Your task to perform on an android device: Show me popular games on the Play Store Image 0: 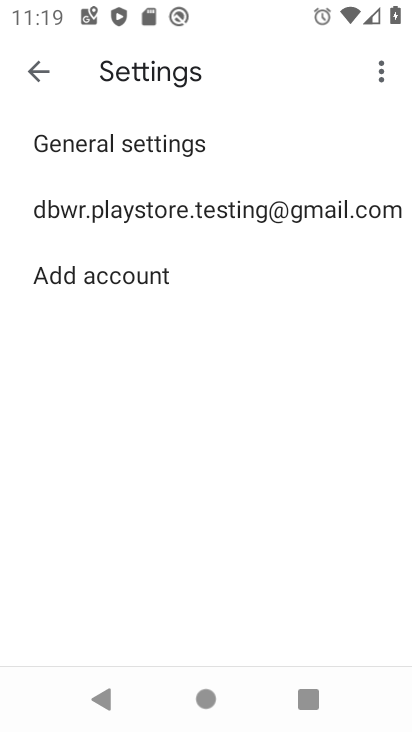
Step 0: press home button
Your task to perform on an android device: Show me popular games on the Play Store Image 1: 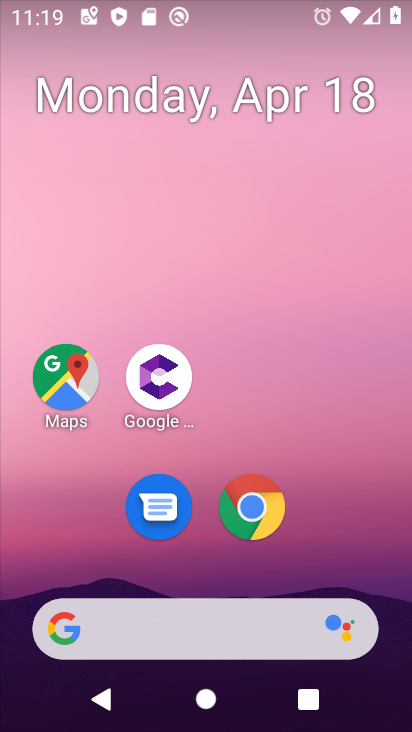
Step 1: drag from (272, 522) to (268, 170)
Your task to perform on an android device: Show me popular games on the Play Store Image 2: 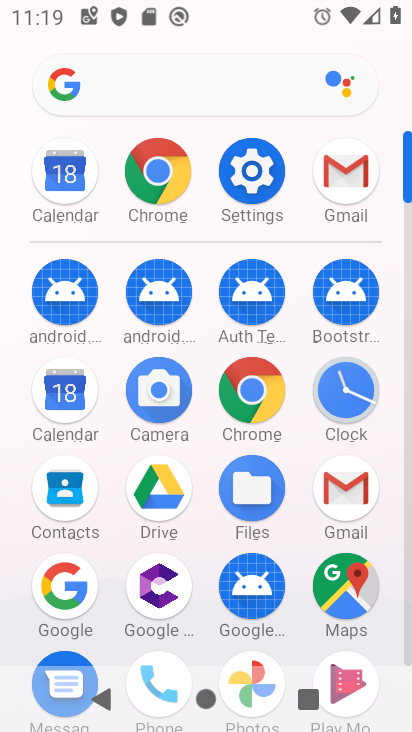
Step 2: drag from (193, 557) to (214, 305)
Your task to perform on an android device: Show me popular games on the Play Store Image 3: 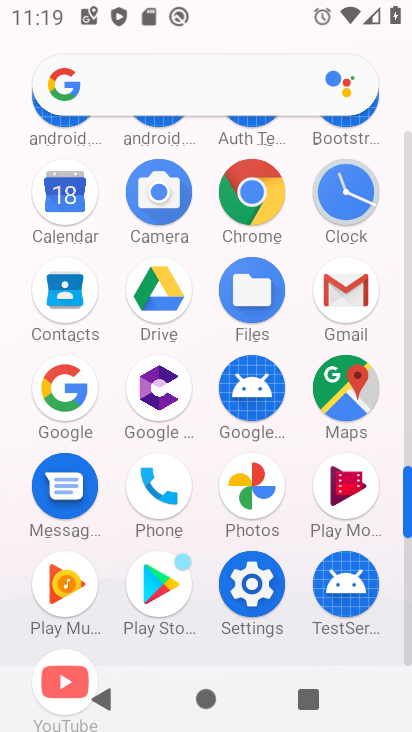
Step 3: click (173, 593)
Your task to perform on an android device: Show me popular games on the Play Store Image 4: 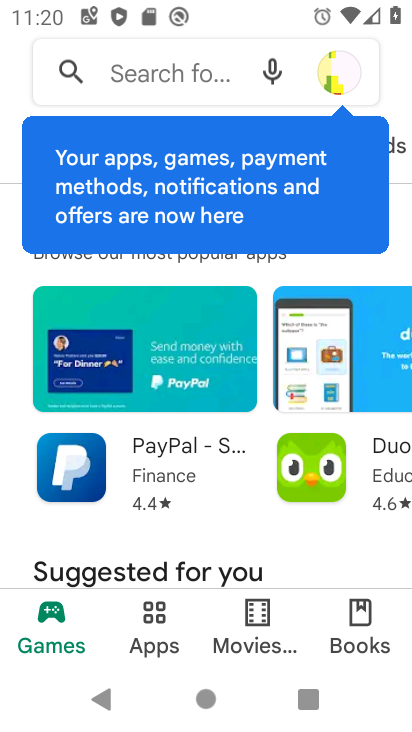
Step 4: click (188, 74)
Your task to perform on an android device: Show me popular games on the Play Store Image 5: 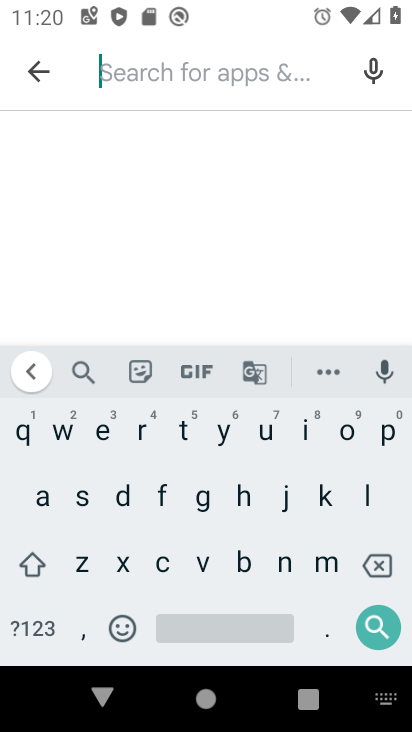
Step 5: click (387, 433)
Your task to perform on an android device: Show me popular games on the Play Store Image 6: 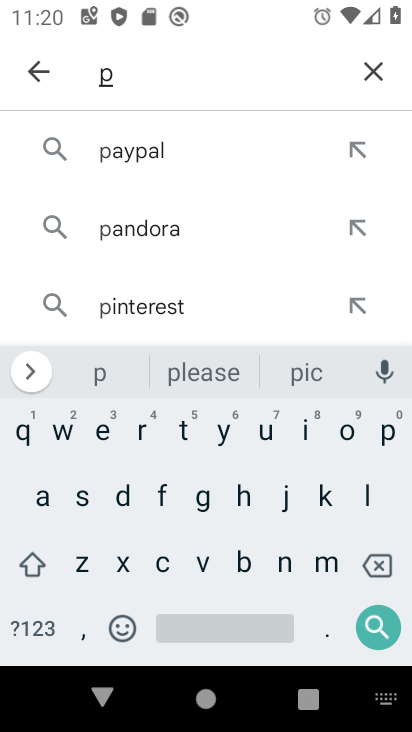
Step 6: click (341, 441)
Your task to perform on an android device: Show me popular games on the Play Store Image 7: 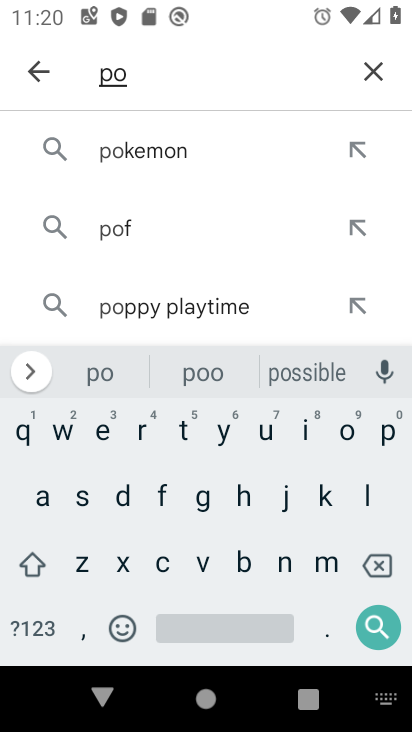
Step 7: click (385, 433)
Your task to perform on an android device: Show me popular games on the Play Store Image 8: 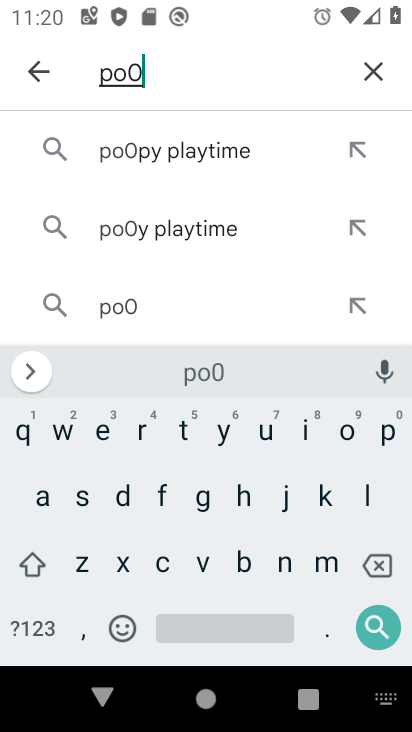
Step 8: click (263, 431)
Your task to perform on an android device: Show me popular games on the Play Store Image 9: 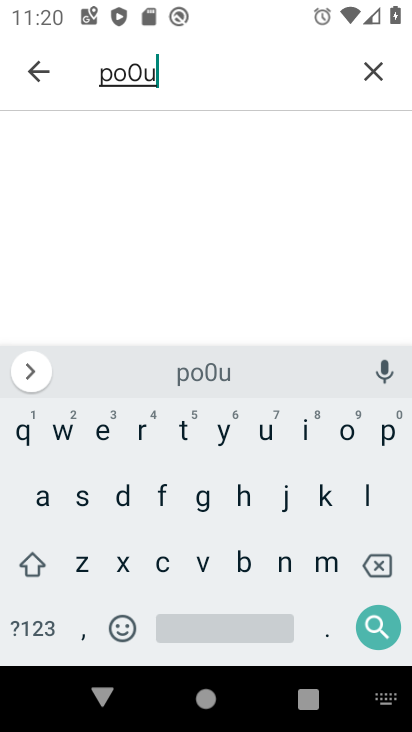
Step 9: click (376, 568)
Your task to perform on an android device: Show me popular games on the Play Store Image 10: 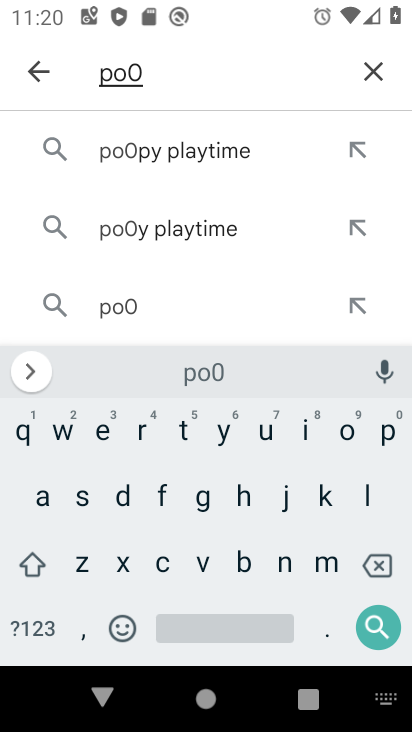
Step 10: click (376, 565)
Your task to perform on an android device: Show me popular games on the Play Store Image 11: 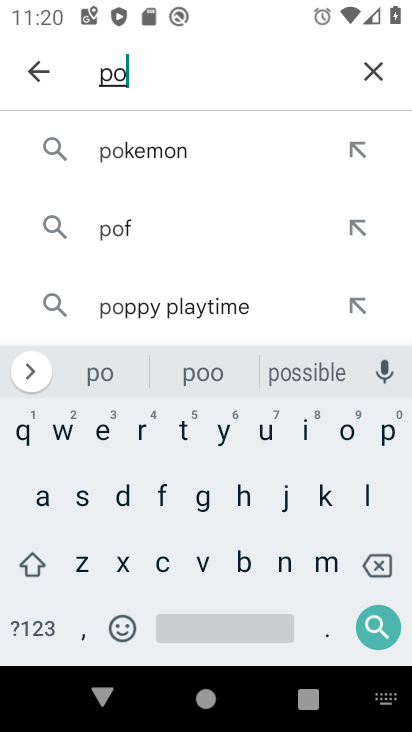
Step 11: click (390, 433)
Your task to perform on an android device: Show me popular games on the Play Store Image 12: 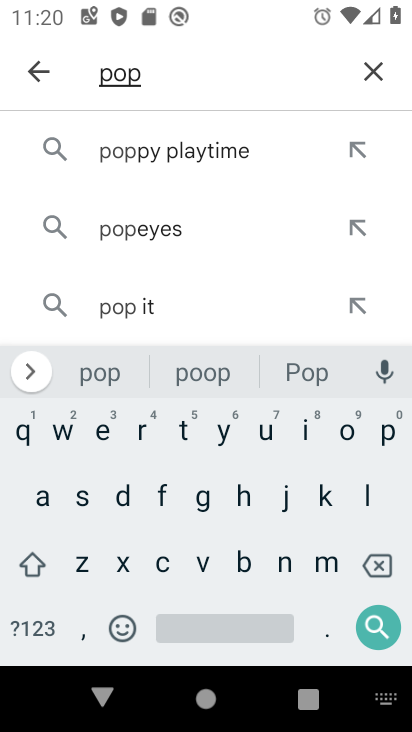
Step 12: click (257, 437)
Your task to perform on an android device: Show me popular games on the Play Store Image 13: 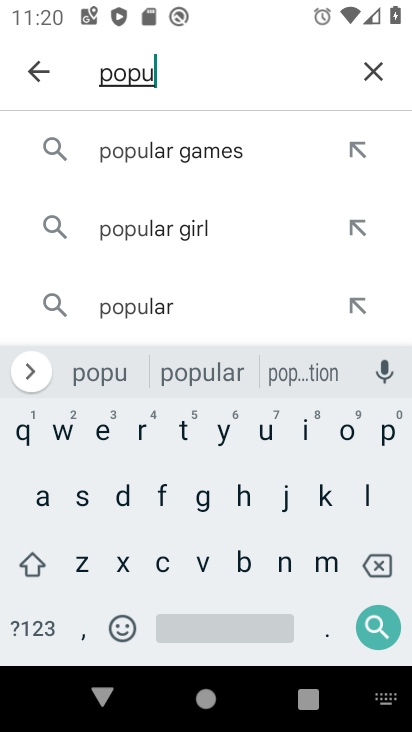
Step 13: click (211, 142)
Your task to perform on an android device: Show me popular games on the Play Store Image 14: 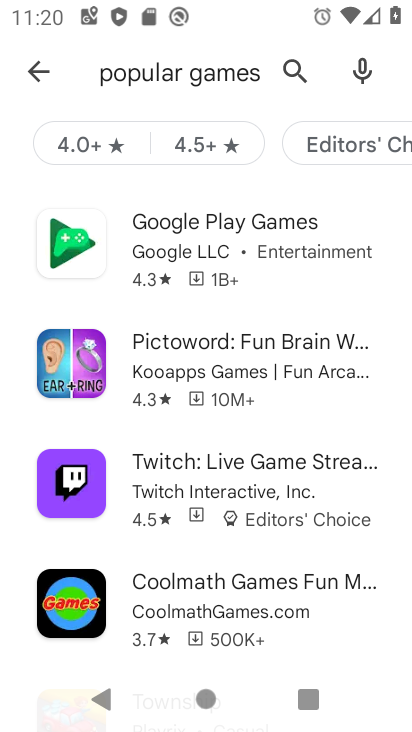
Step 14: task complete